Your task to perform on an android device: turn smart compose on in the gmail app Image 0: 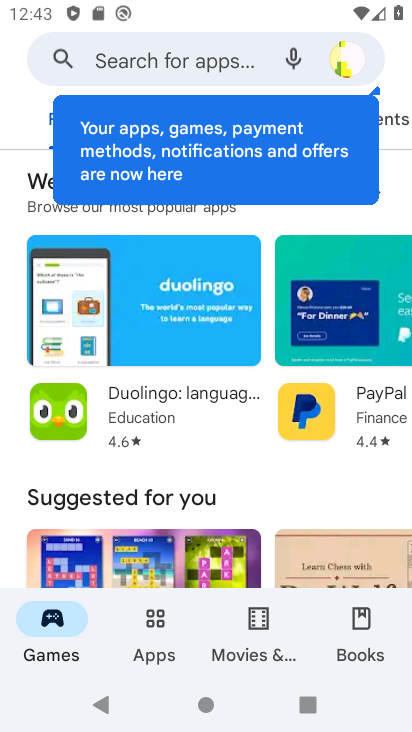
Step 0: press home button
Your task to perform on an android device: turn smart compose on in the gmail app Image 1: 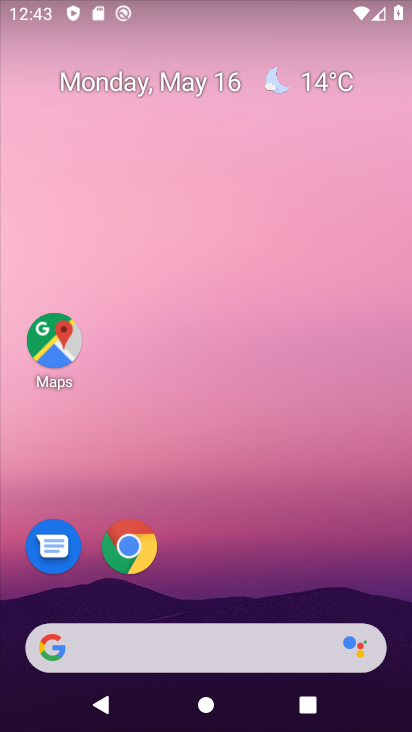
Step 1: drag from (237, 679) to (336, 167)
Your task to perform on an android device: turn smart compose on in the gmail app Image 2: 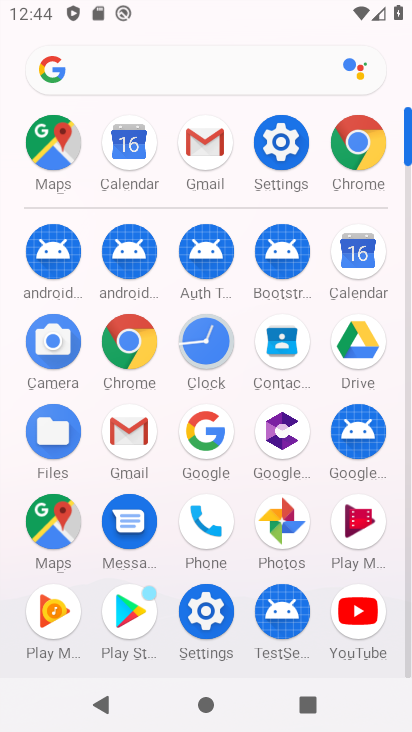
Step 2: click (113, 418)
Your task to perform on an android device: turn smart compose on in the gmail app Image 3: 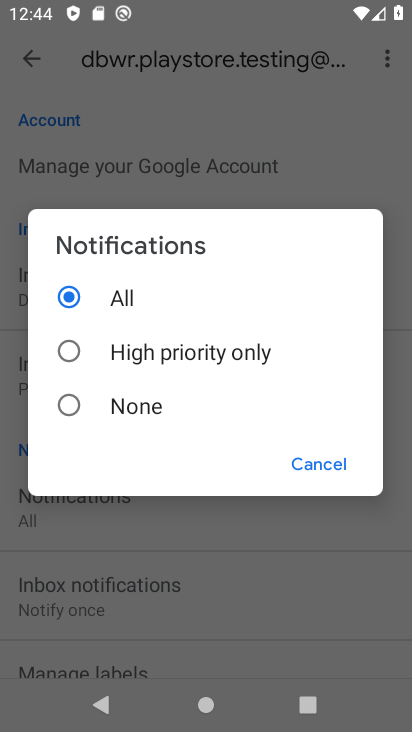
Step 3: click (286, 457)
Your task to perform on an android device: turn smart compose on in the gmail app Image 4: 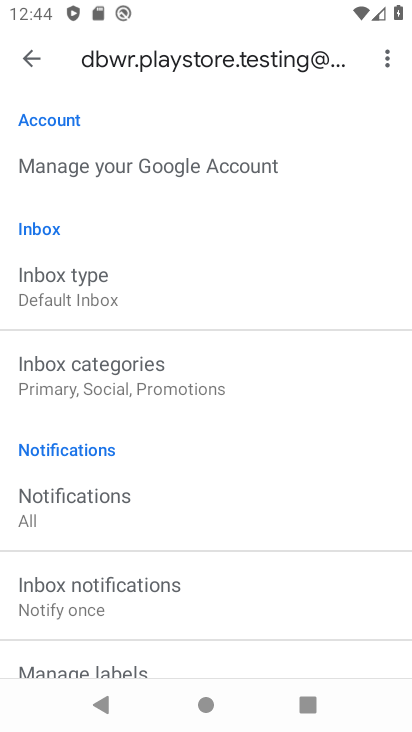
Step 4: drag from (202, 556) to (330, 219)
Your task to perform on an android device: turn smart compose on in the gmail app Image 5: 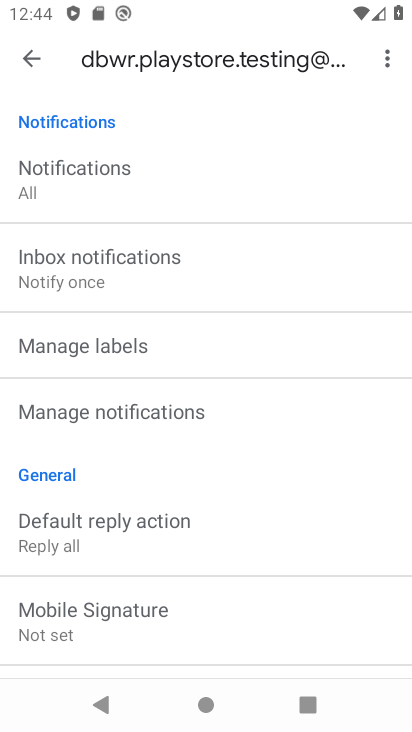
Step 5: drag from (144, 515) to (223, 230)
Your task to perform on an android device: turn smart compose on in the gmail app Image 6: 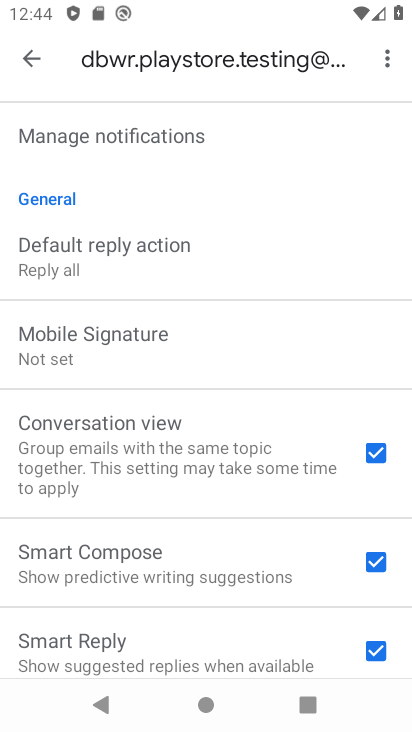
Step 6: click (351, 548)
Your task to perform on an android device: turn smart compose on in the gmail app Image 7: 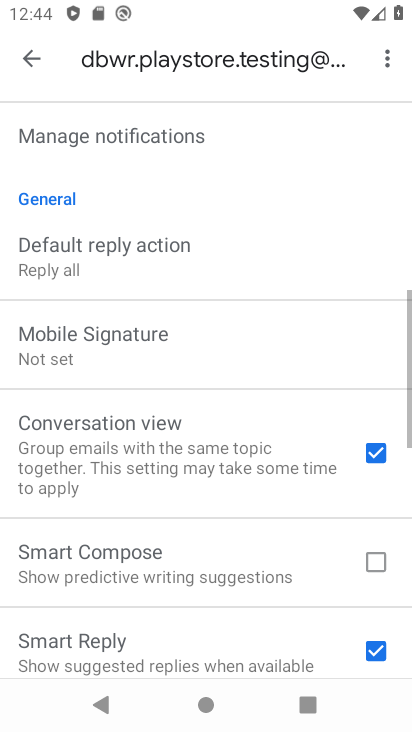
Step 7: click (351, 548)
Your task to perform on an android device: turn smart compose on in the gmail app Image 8: 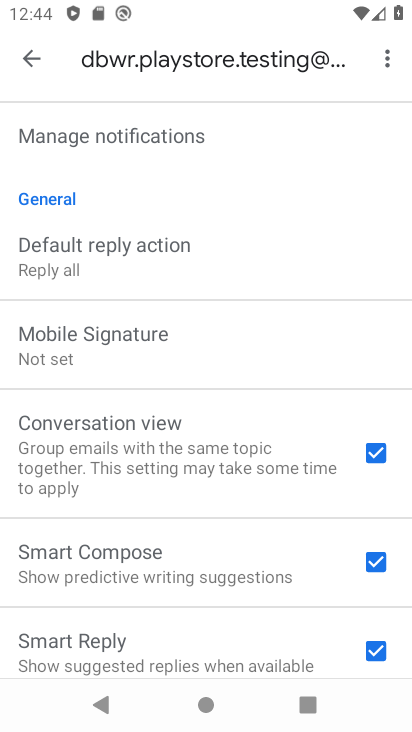
Step 8: task complete